Your task to perform on an android device: change alarm snooze length Image 0: 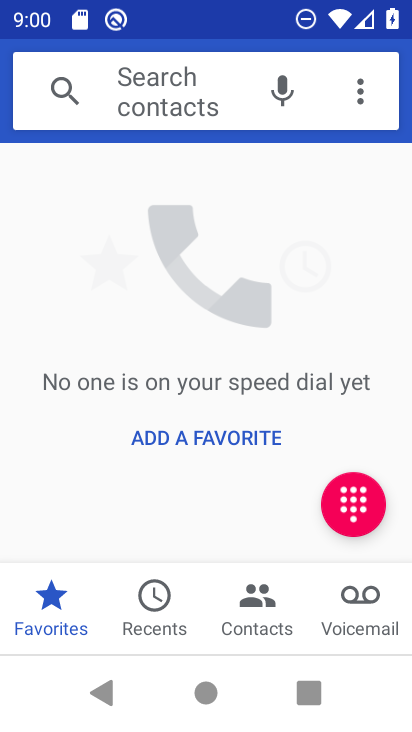
Step 0: press home button
Your task to perform on an android device: change alarm snooze length Image 1: 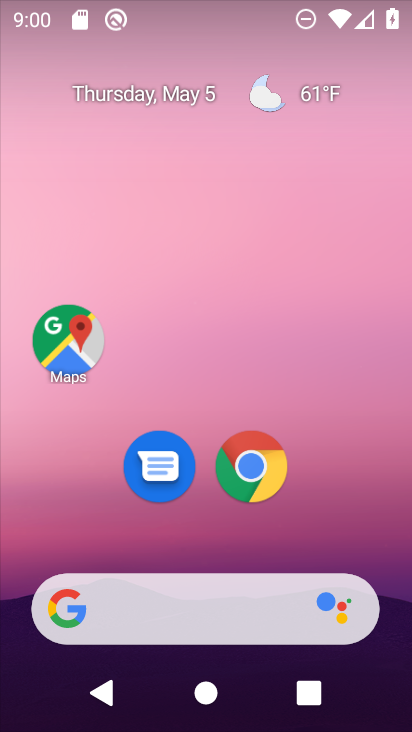
Step 1: drag from (149, 609) to (167, 1)
Your task to perform on an android device: change alarm snooze length Image 2: 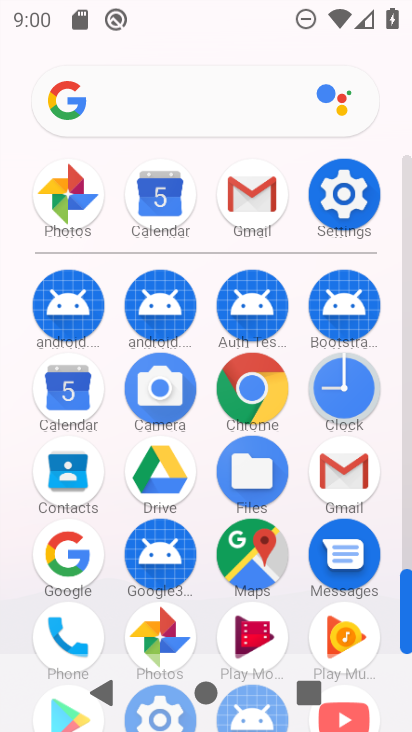
Step 2: click (349, 376)
Your task to perform on an android device: change alarm snooze length Image 3: 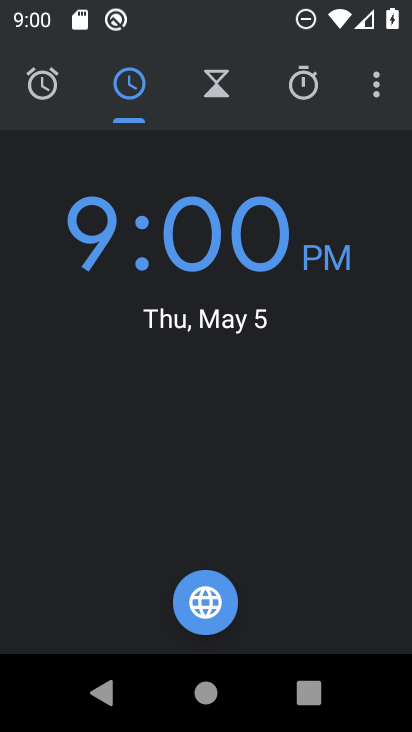
Step 3: click (357, 80)
Your task to perform on an android device: change alarm snooze length Image 4: 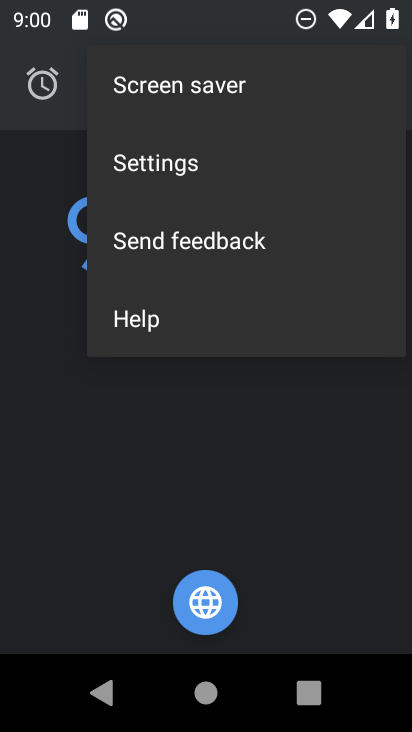
Step 4: click (180, 166)
Your task to perform on an android device: change alarm snooze length Image 5: 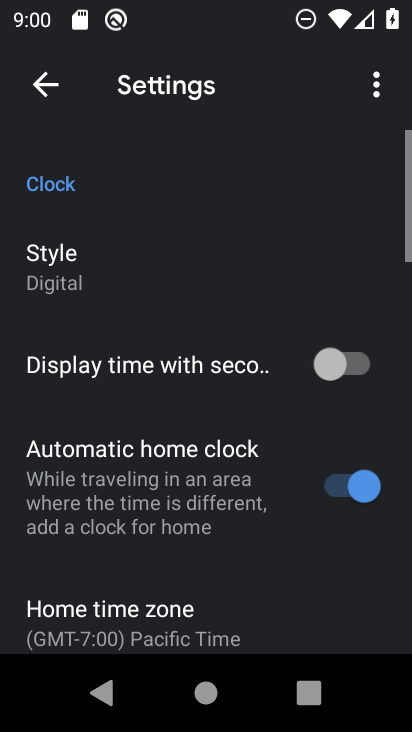
Step 5: drag from (164, 513) to (205, 59)
Your task to perform on an android device: change alarm snooze length Image 6: 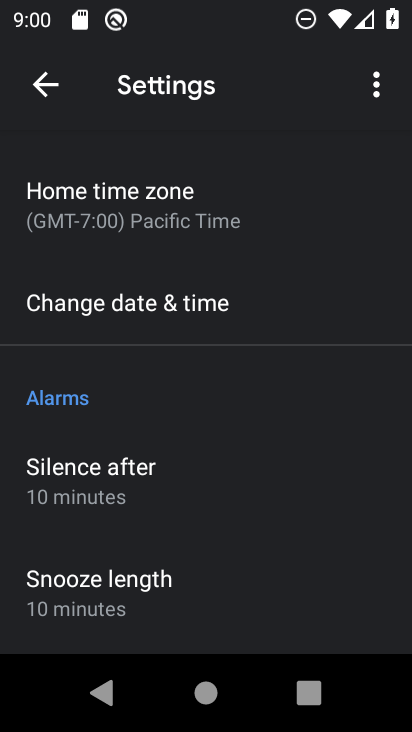
Step 6: click (137, 588)
Your task to perform on an android device: change alarm snooze length Image 7: 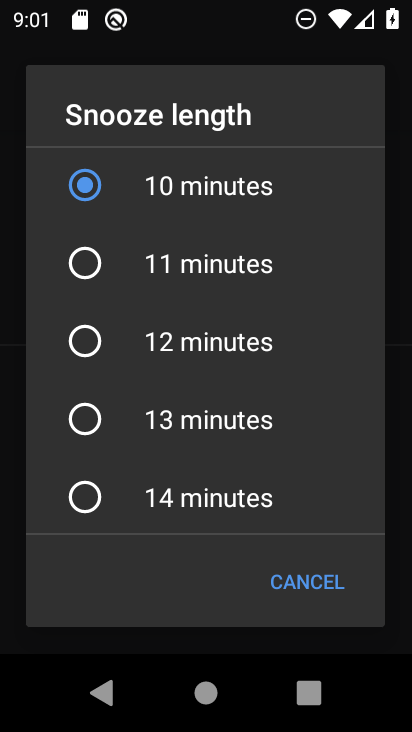
Step 7: click (159, 414)
Your task to perform on an android device: change alarm snooze length Image 8: 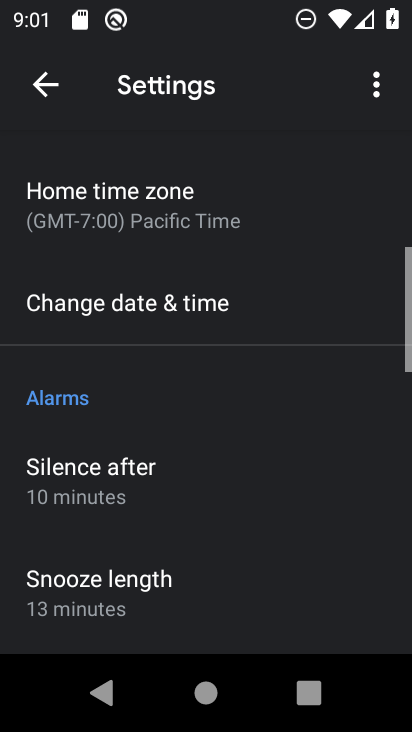
Step 8: task complete